Your task to perform on an android device: change the upload size in google photos Image 0: 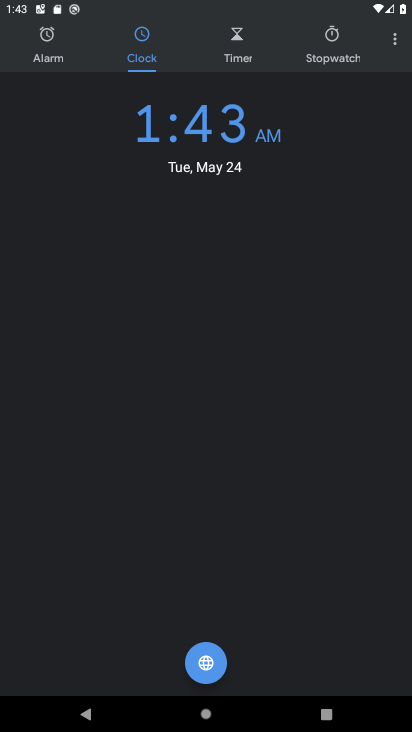
Step 0: press home button
Your task to perform on an android device: change the upload size in google photos Image 1: 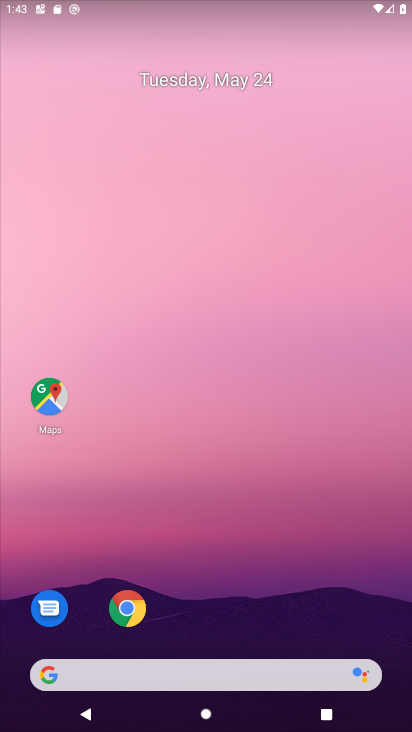
Step 1: drag from (266, 595) to (141, 4)
Your task to perform on an android device: change the upload size in google photos Image 2: 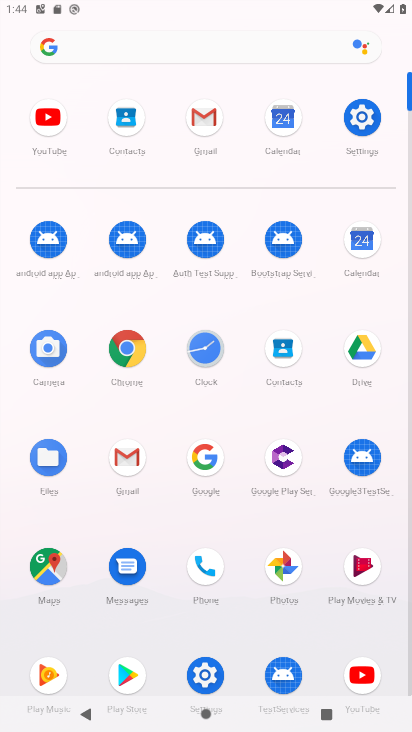
Step 2: click (279, 583)
Your task to perform on an android device: change the upload size in google photos Image 3: 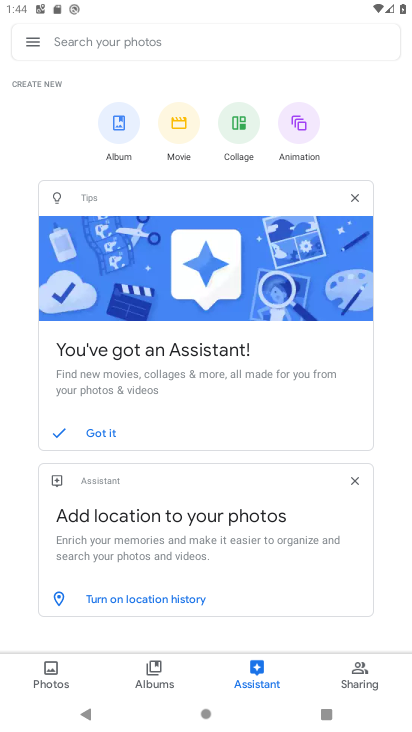
Step 3: click (34, 50)
Your task to perform on an android device: change the upload size in google photos Image 4: 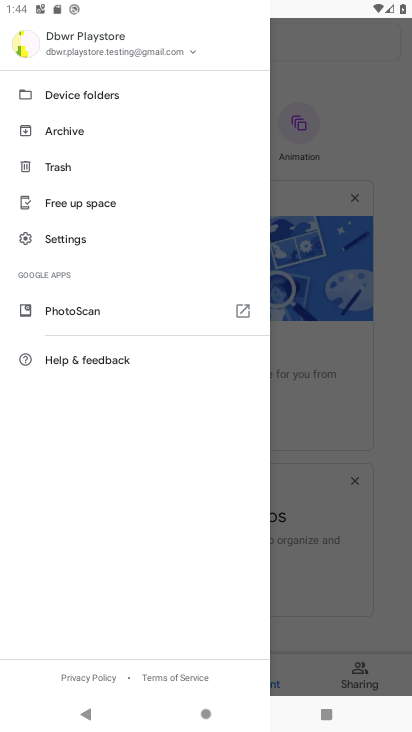
Step 4: click (90, 225)
Your task to perform on an android device: change the upload size in google photos Image 5: 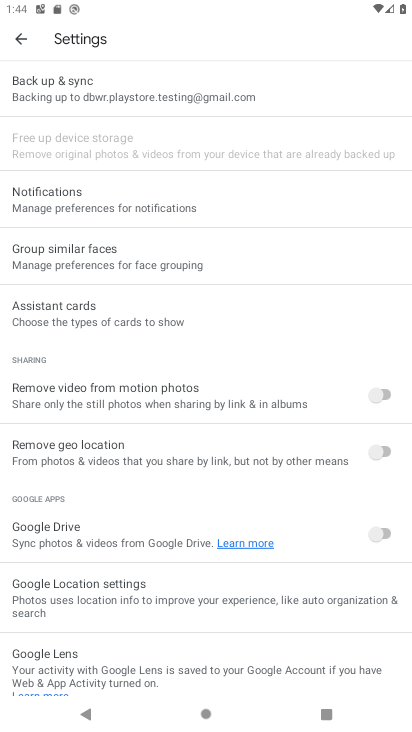
Step 5: click (90, 225)
Your task to perform on an android device: change the upload size in google photos Image 6: 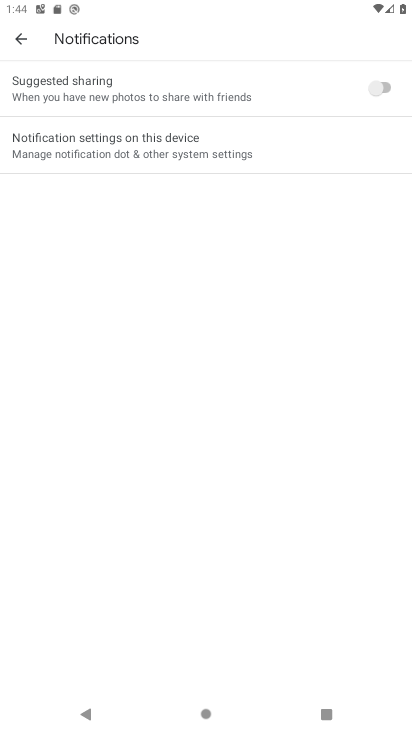
Step 6: click (11, 52)
Your task to perform on an android device: change the upload size in google photos Image 7: 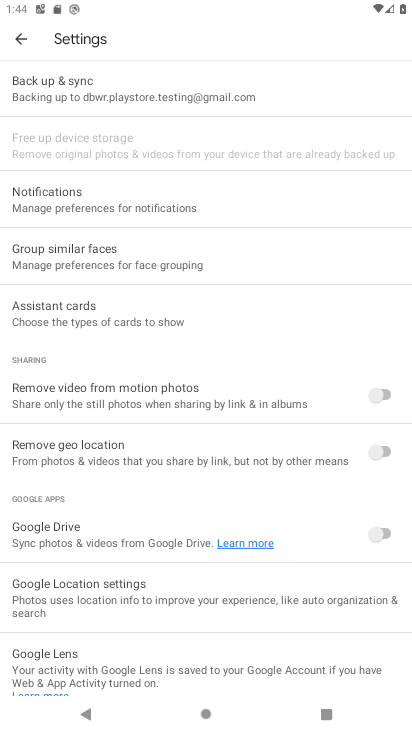
Step 7: click (23, 44)
Your task to perform on an android device: change the upload size in google photos Image 8: 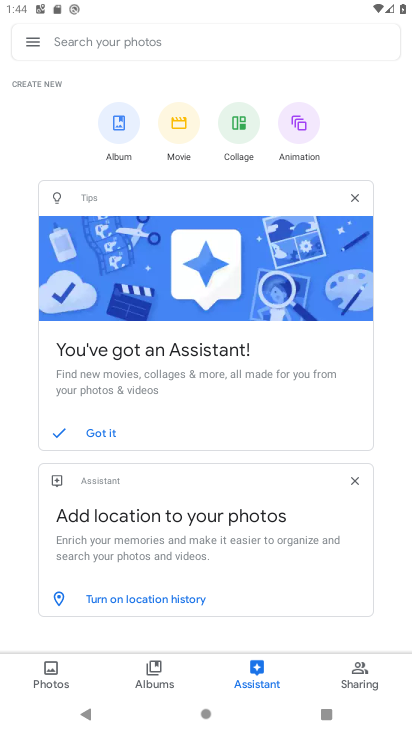
Step 8: task complete